Your task to perform on an android device: Search for Italian restaurants on Maps Image 0: 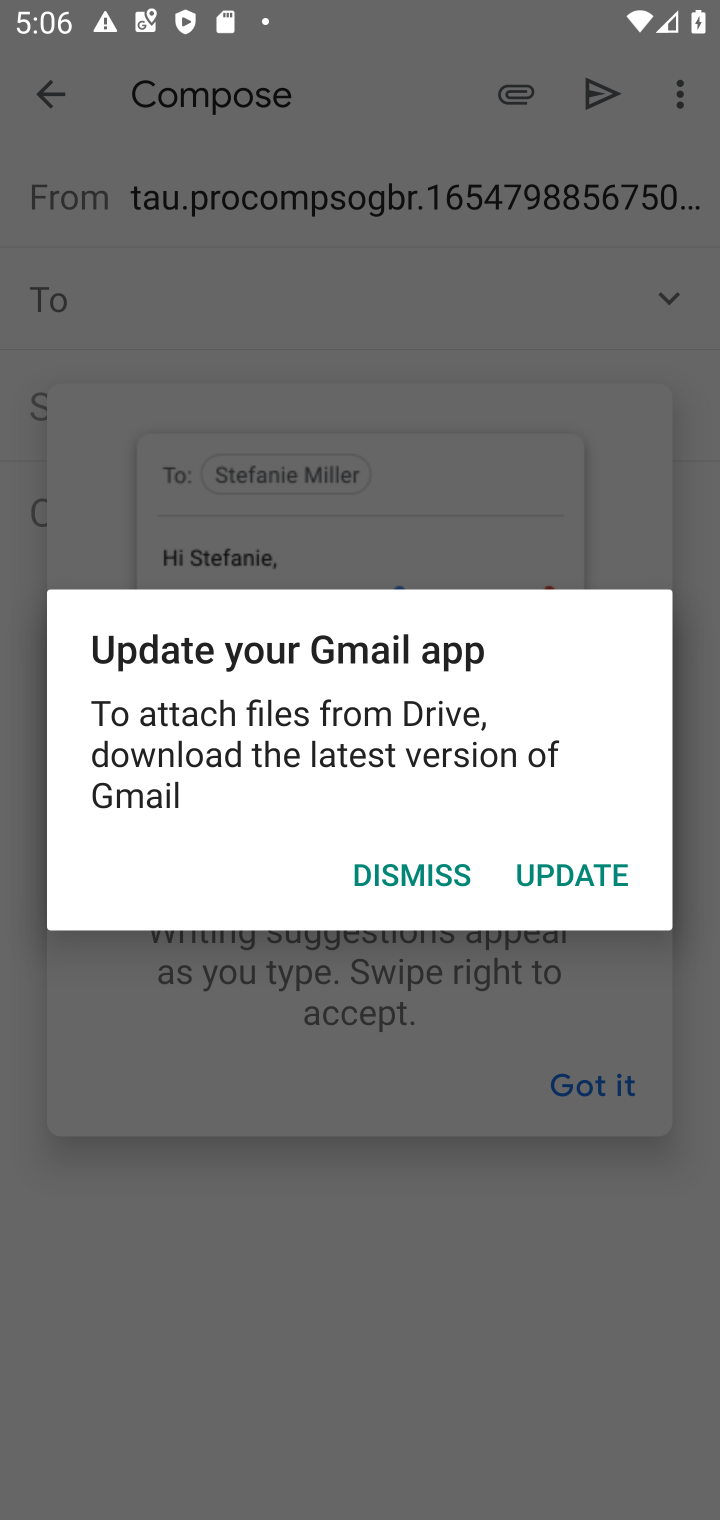
Step 0: press home button
Your task to perform on an android device: Search for Italian restaurants on Maps Image 1: 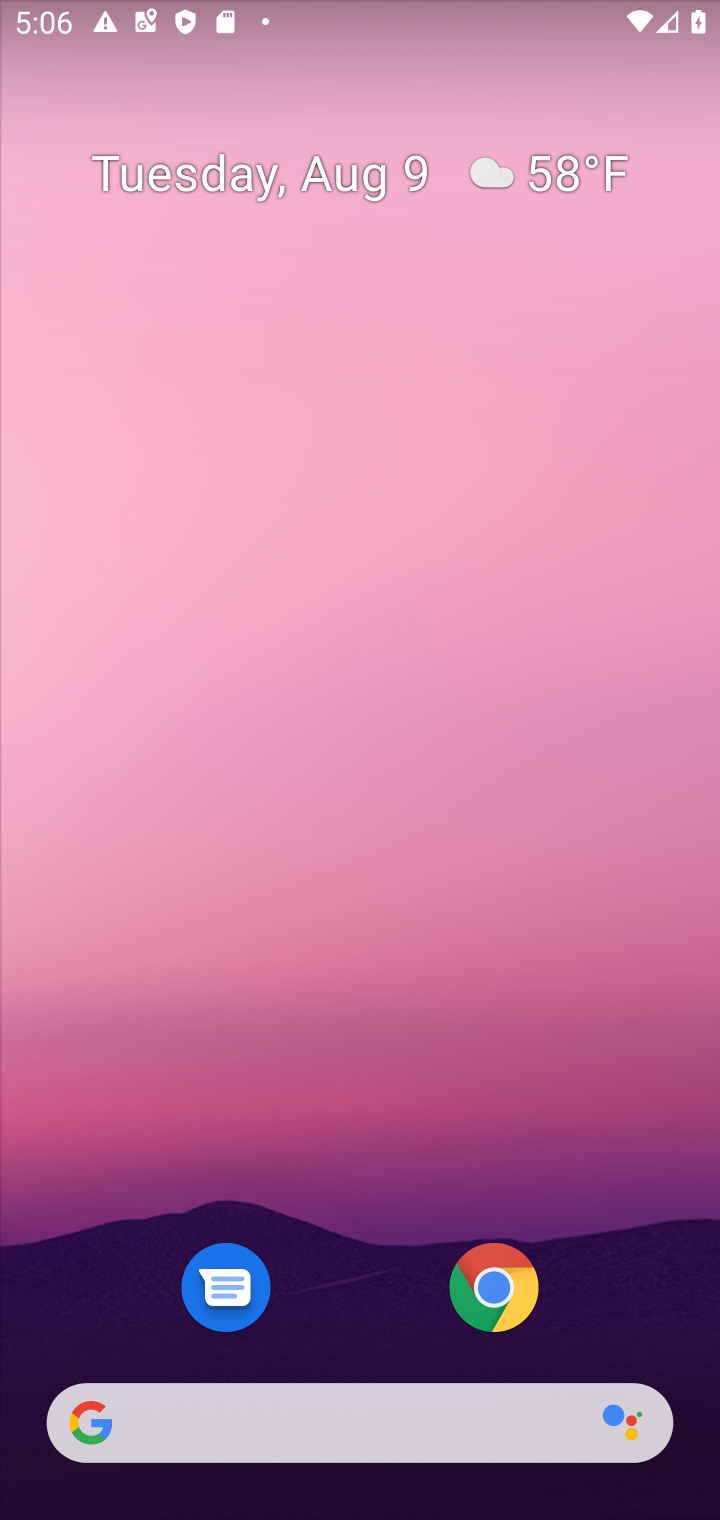
Step 1: drag from (408, 1194) to (432, 272)
Your task to perform on an android device: Search for Italian restaurants on Maps Image 2: 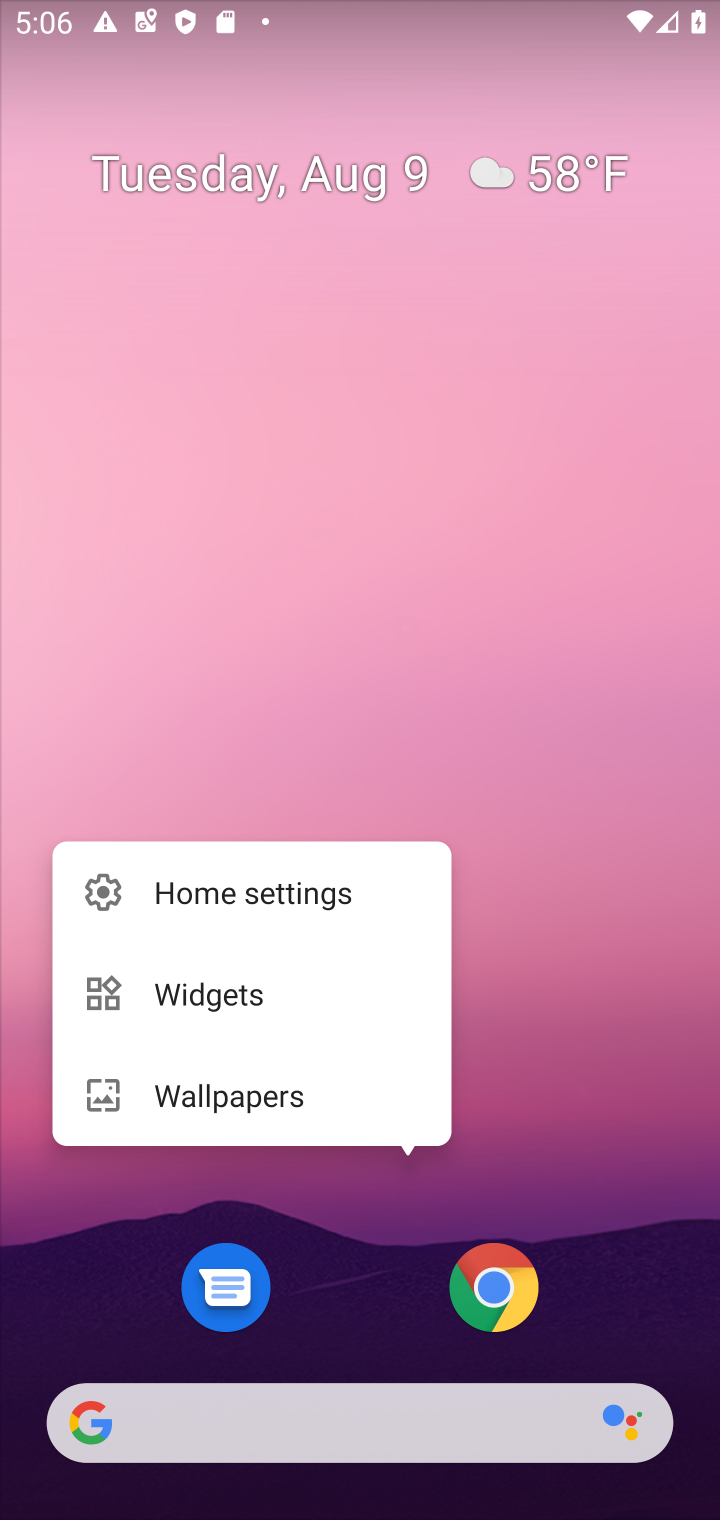
Step 2: click (563, 981)
Your task to perform on an android device: Search for Italian restaurants on Maps Image 3: 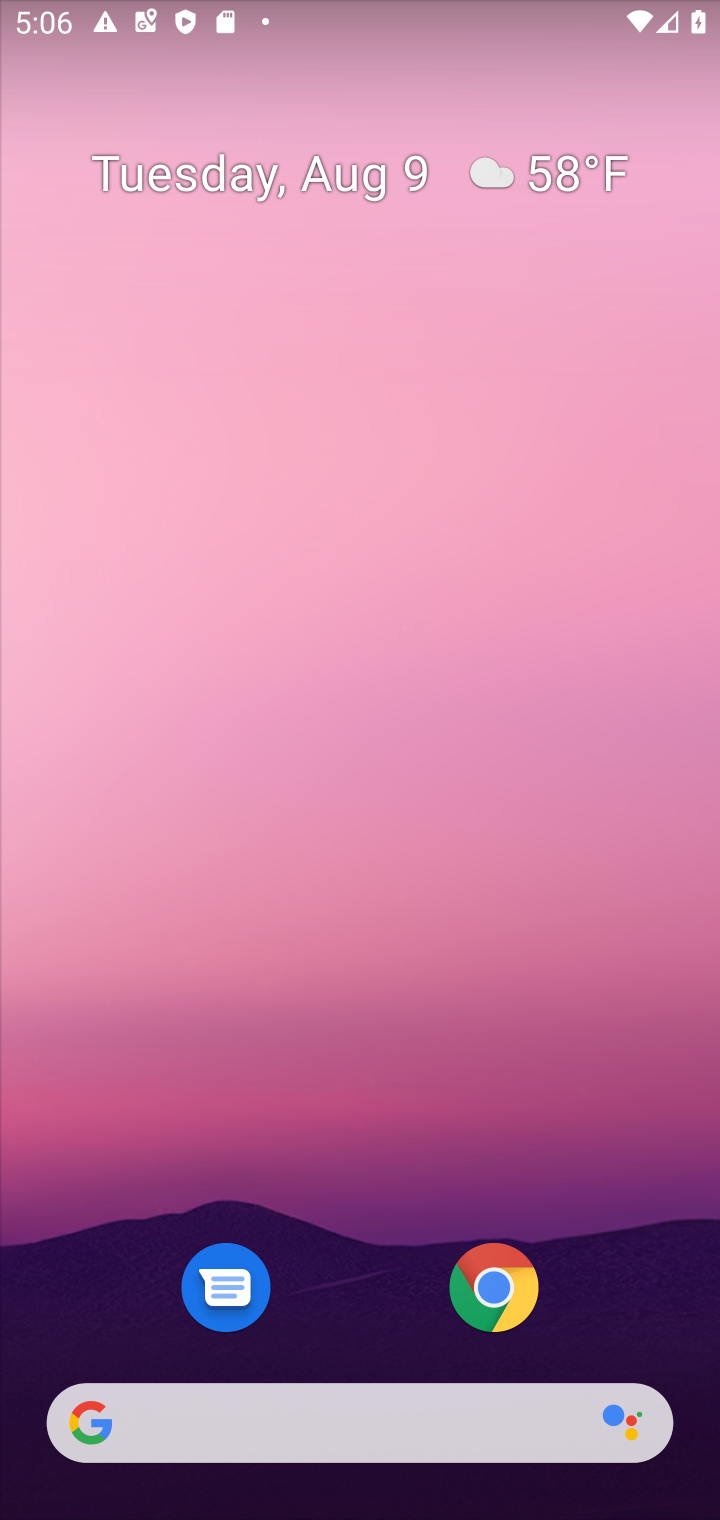
Step 3: drag from (479, 1138) to (572, 337)
Your task to perform on an android device: Search for Italian restaurants on Maps Image 4: 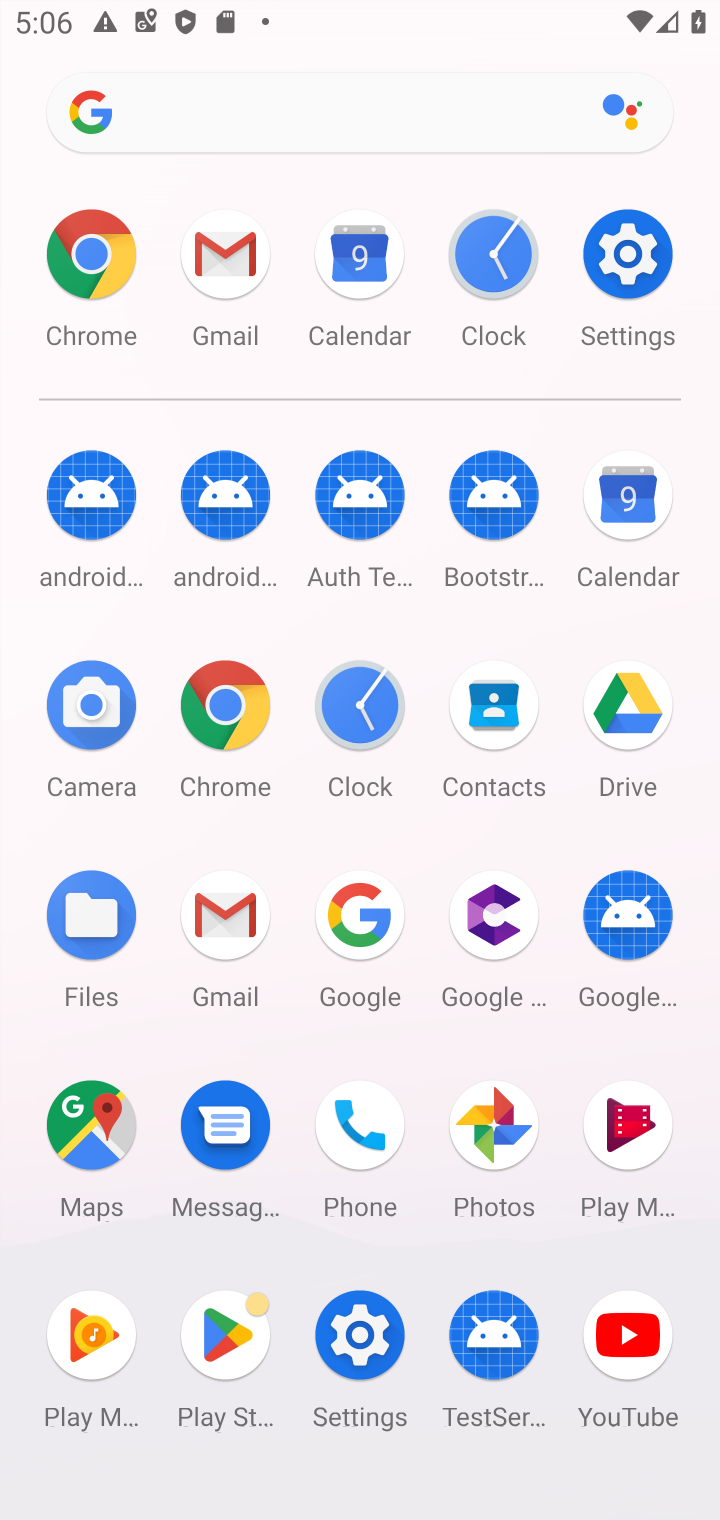
Step 4: click (85, 1130)
Your task to perform on an android device: Search for Italian restaurants on Maps Image 5: 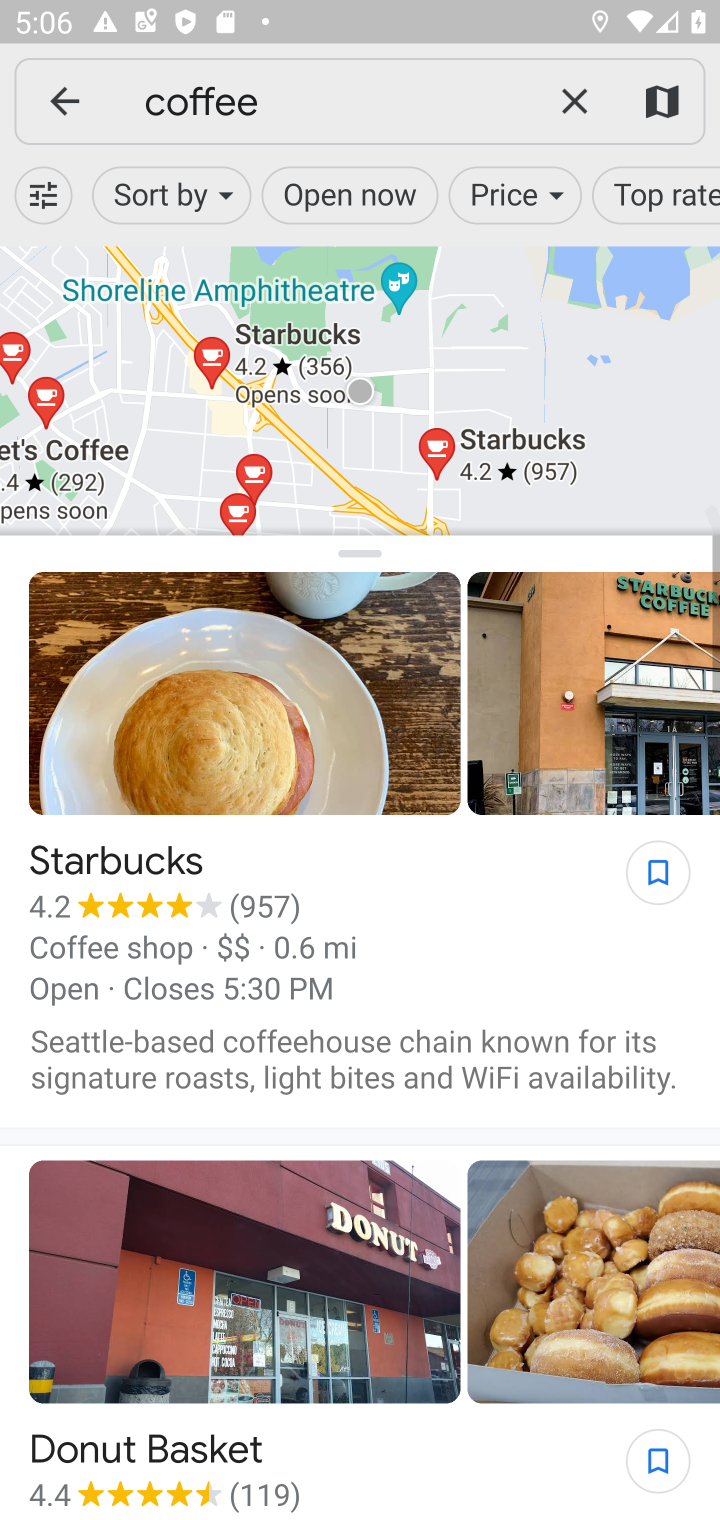
Step 5: click (565, 105)
Your task to perform on an android device: Search for Italian restaurants on Maps Image 6: 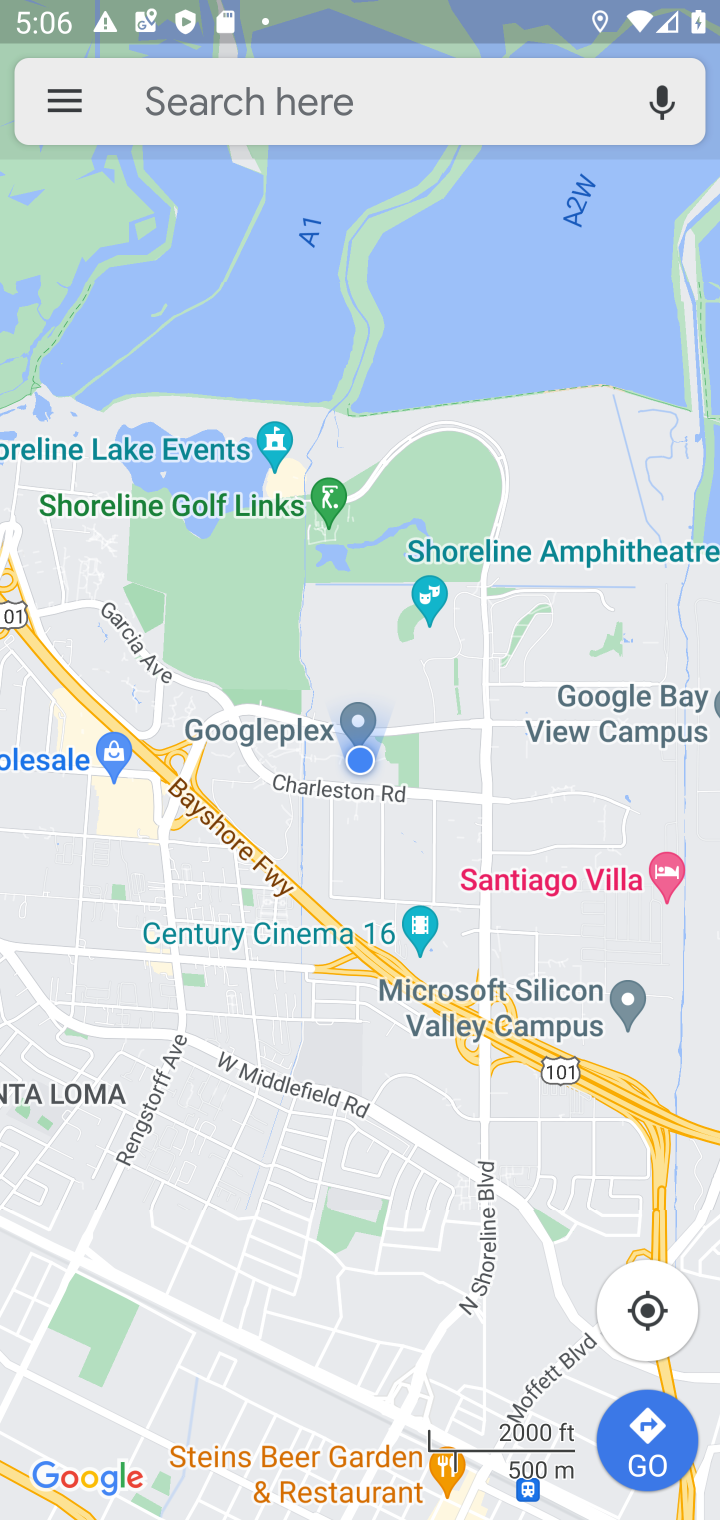
Step 6: click (243, 111)
Your task to perform on an android device: Search for Italian restaurants on Maps Image 7: 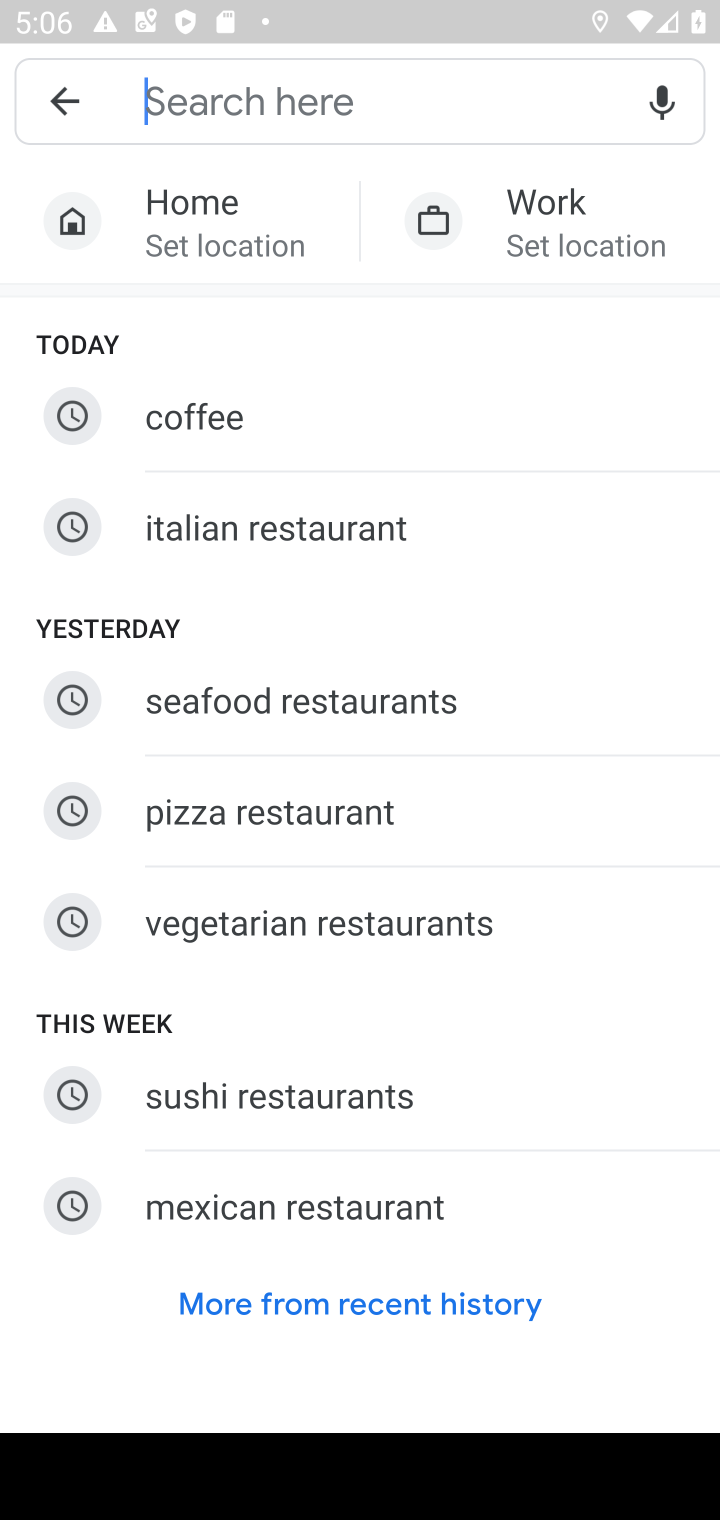
Step 7: type "Italian restaurants "
Your task to perform on an android device: Search for Italian restaurants on Maps Image 8: 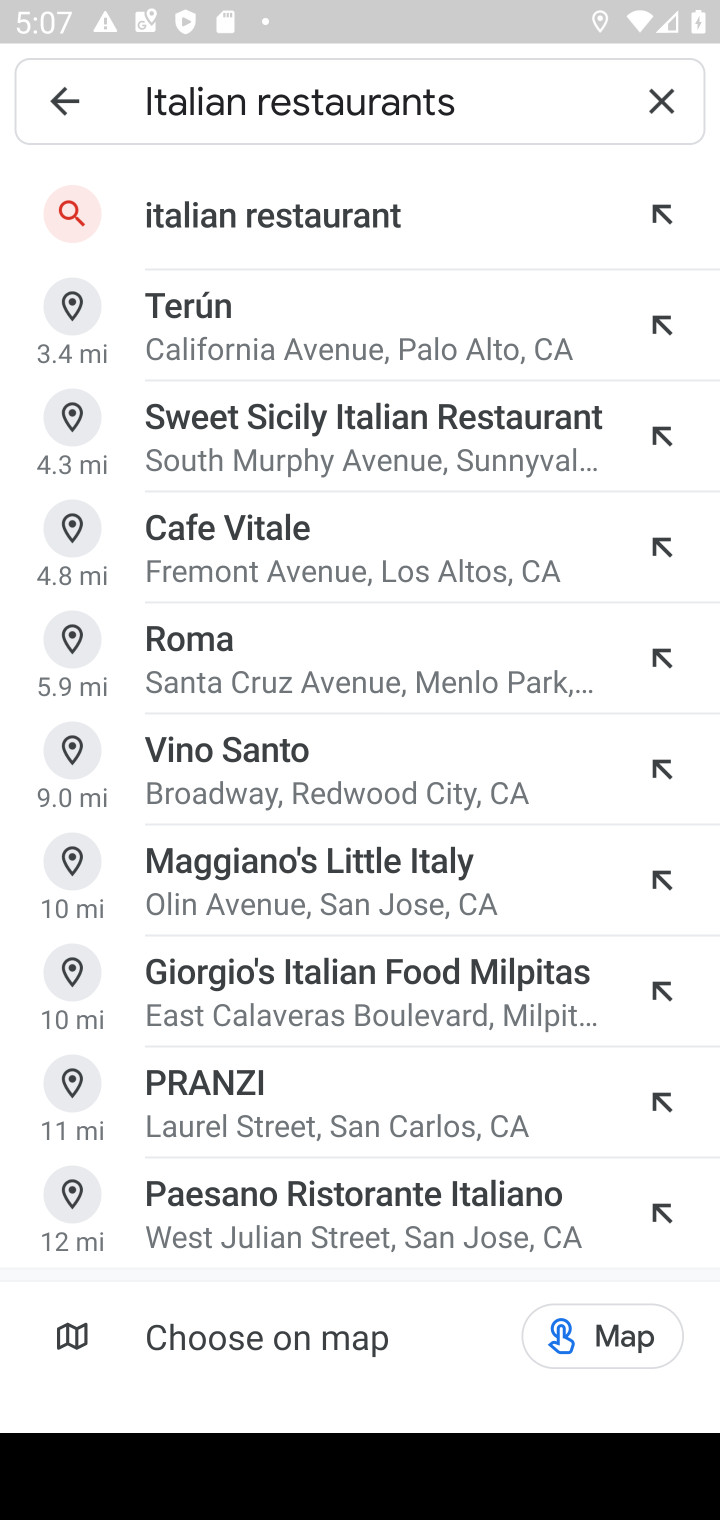
Step 8: press enter
Your task to perform on an android device: Search for Italian restaurants on Maps Image 9: 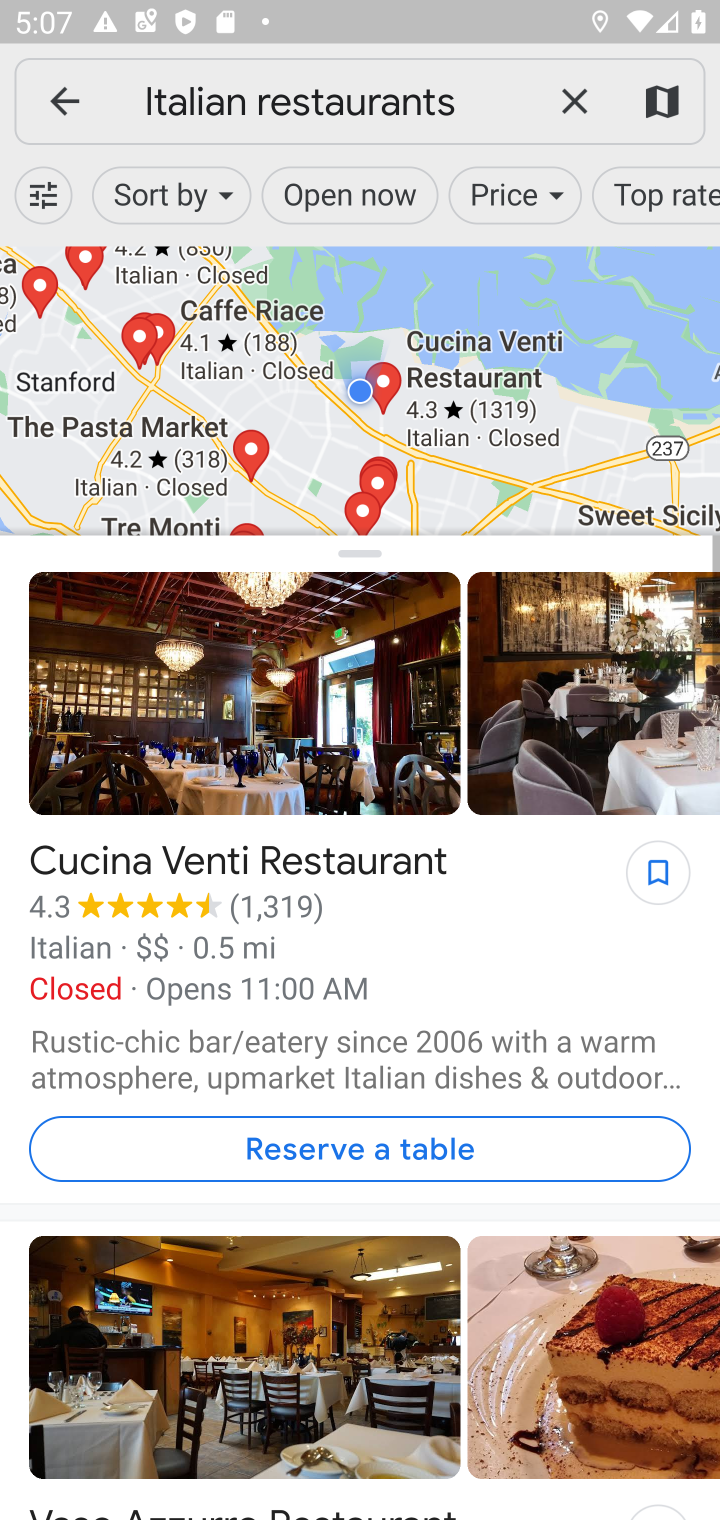
Step 9: task complete